Your task to perform on an android device: change text size in settings app Image 0: 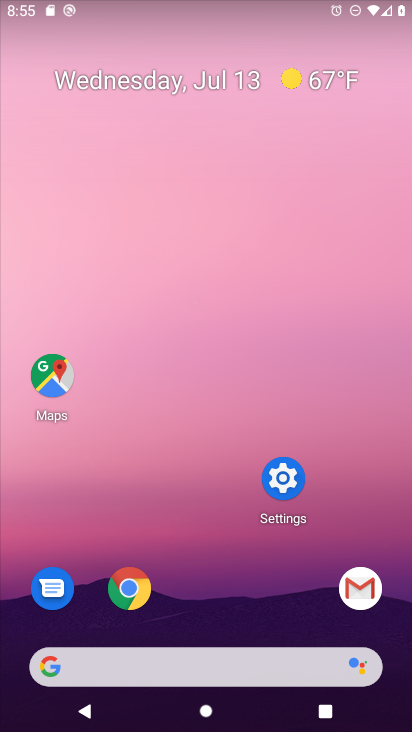
Step 0: click (290, 481)
Your task to perform on an android device: change text size in settings app Image 1: 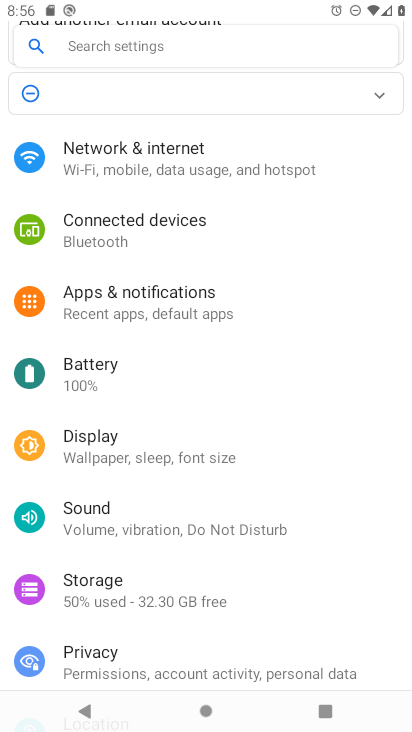
Step 1: click (105, 49)
Your task to perform on an android device: change text size in settings app Image 2: 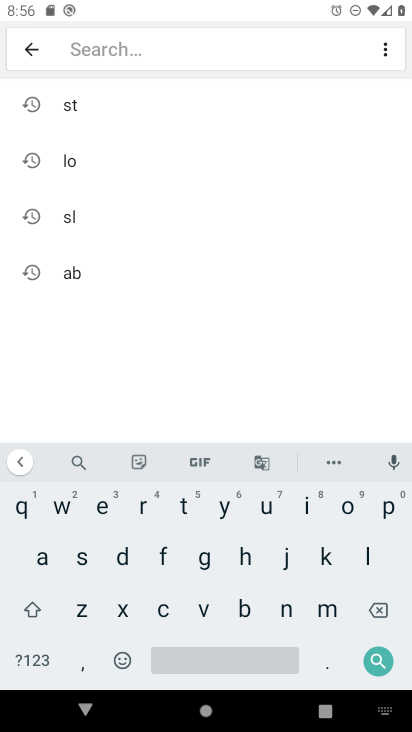
Step 2: click (84, 563)
Your task to perform on an android device: change text size in settings app Image 3: 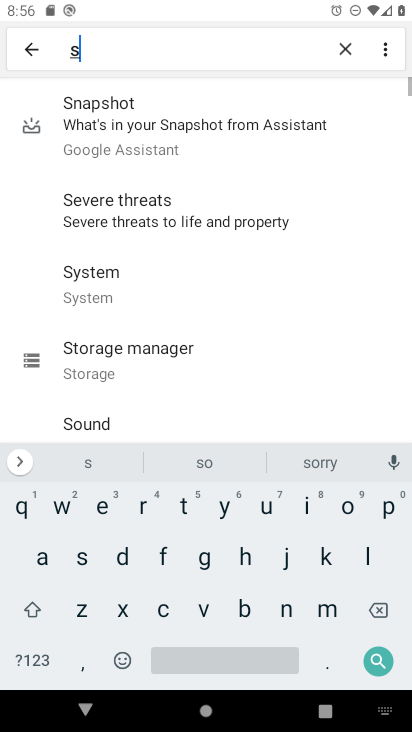
Step 3: click (299, 510)
Your task to perform on an android device: change text size in settings app Image 4: 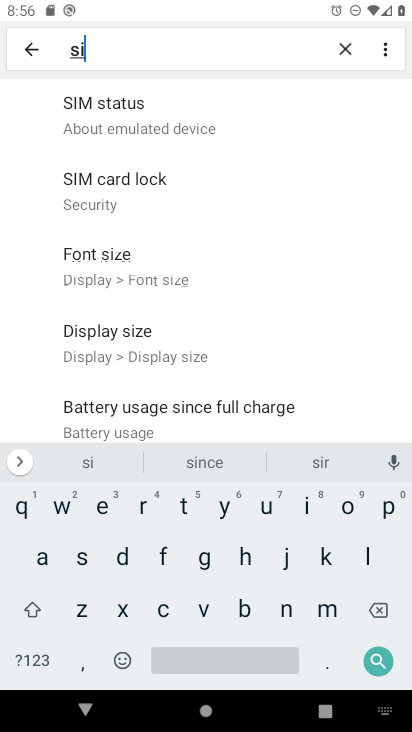
Step 4: click (139, 282)
Your task to perform on an android device: change text size in settings app Image 5: 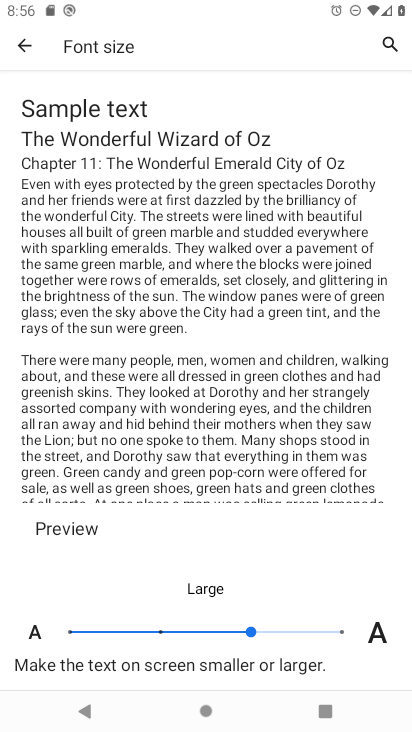
Step 5: click (335, 634)
Your task to perform on an android device: change text size in settings app Image 6: 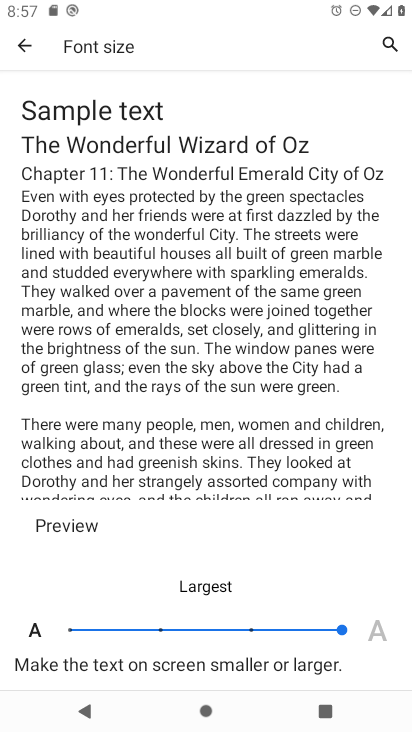
Step 6: task complete